Your task to perform on an android device: turn off notifications in google photos Image 0: 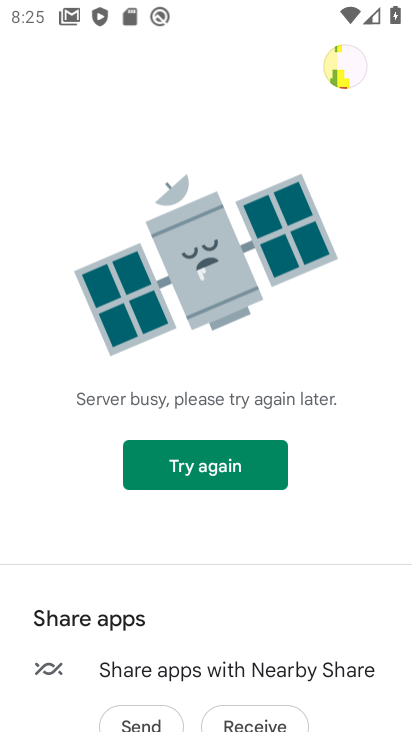
Step 0: press home button
Your task to perform on an android device: turn off notifications in google photos Image 1: 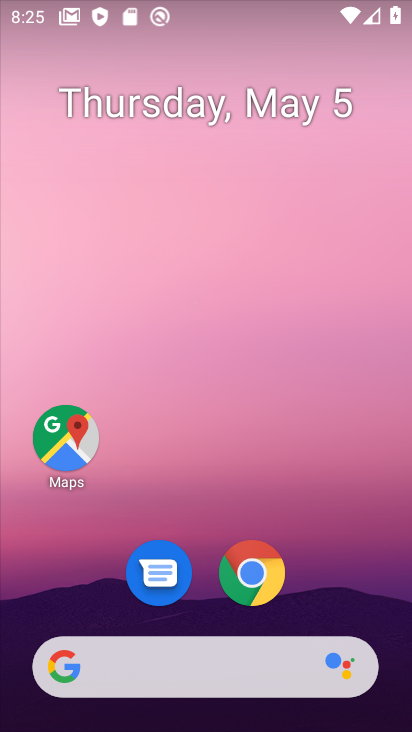
Step 1: drag from (173, 636) to (192, 196)
Your task to perform on an android device: turn off notifications in google photos Image 2: 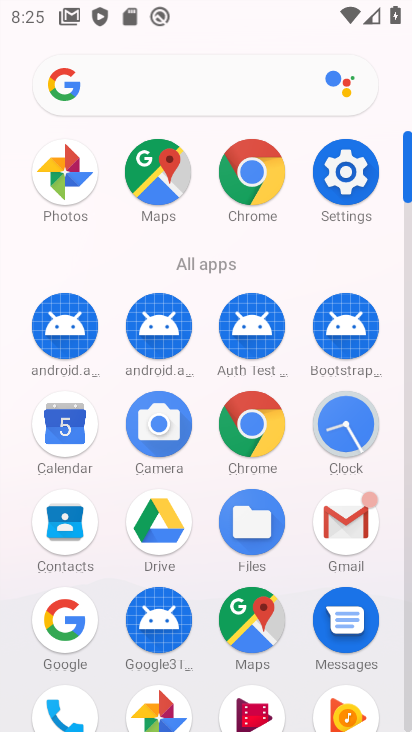
Step 2: drag from (220, 660) to (214, 373)
Your task to perform on an android device: turn off notifications in google photos Image 3: 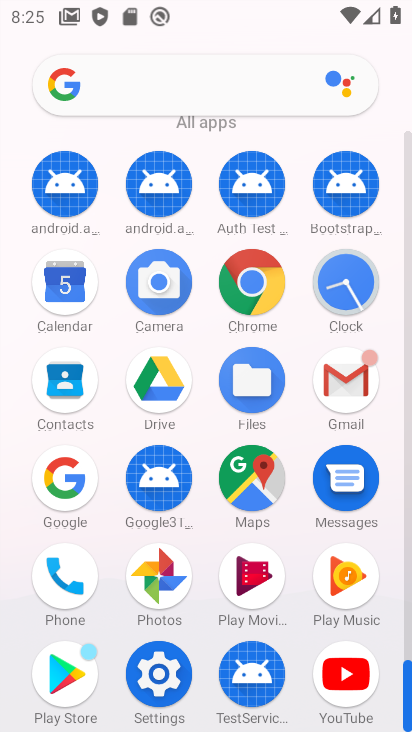
Step 3: click (161, 585)
Your task to perform on an android device: turn off notifications in google photos Image 4: 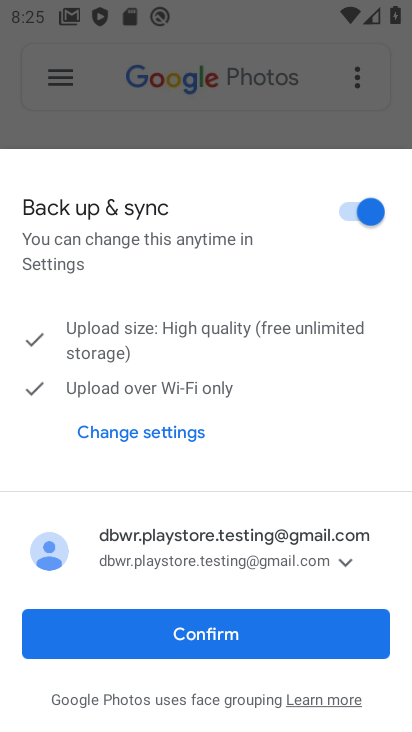
Step 4: click (239, 641)
Your task to perform on an android device: turn off notifications in google photos Image 5: 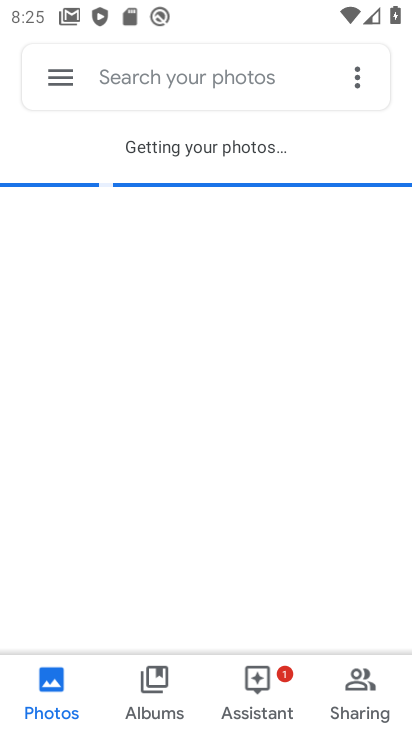
Step 5: click (62, 83)
Your task to perform on an android device: turn off notifications in google photos Image 6: 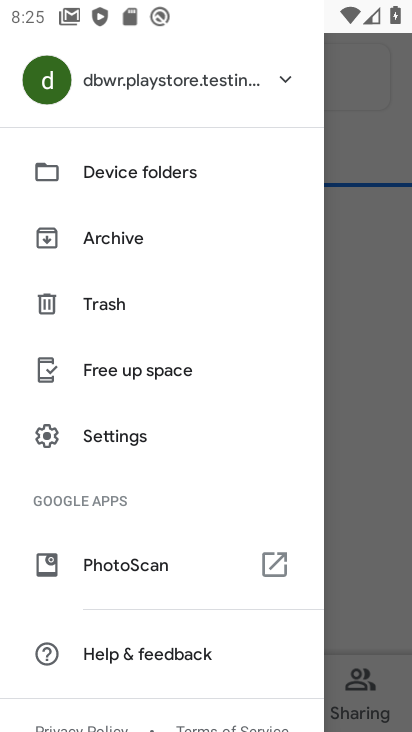
Step 6: click (132, 441)
Your task to perform on an android device: turn off notifications in google photos Image 7: 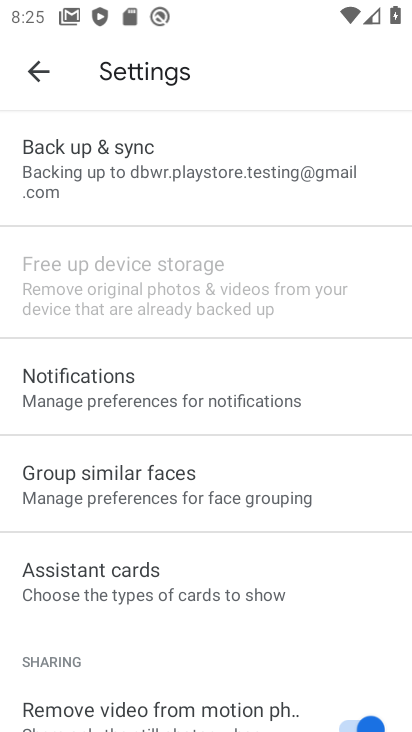
Step 7: click (146, 407)
Your task to perform on an android device: turn off notifications in google photos Image 8: 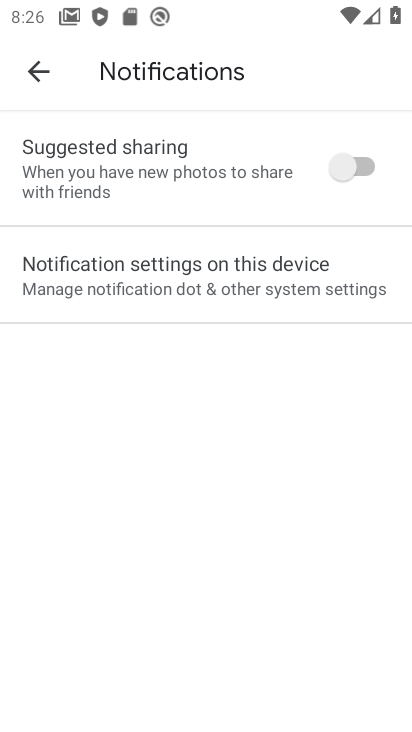
Step 8: task complete